Your task to perform on an android device: toggle pop-ups in chrome Image 0: 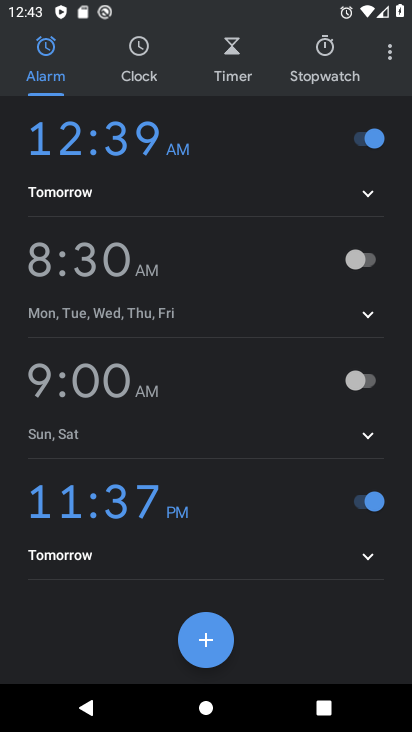
Step 0: press home button
Your task to perform on an android device: toggle pop-ups in chrome Image 1: 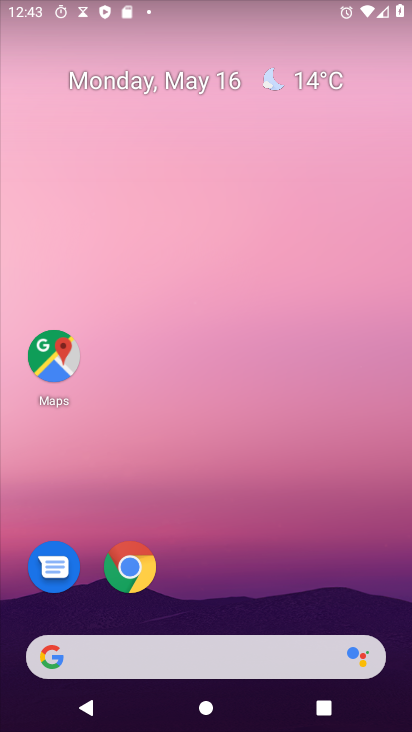
Step 1: click (141, 566)
Your task to perform on an android device: toggle pop-ups in chrome Image 2: 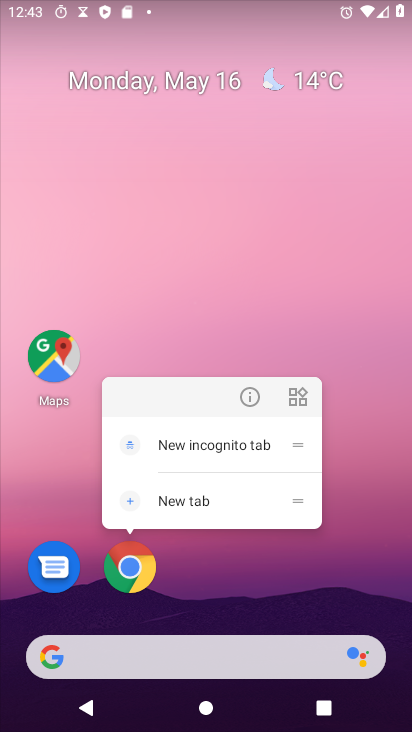
Step 2: click (141, 566)
Your task to perform on an android device: toggle pop-ups in chrome Image 3: 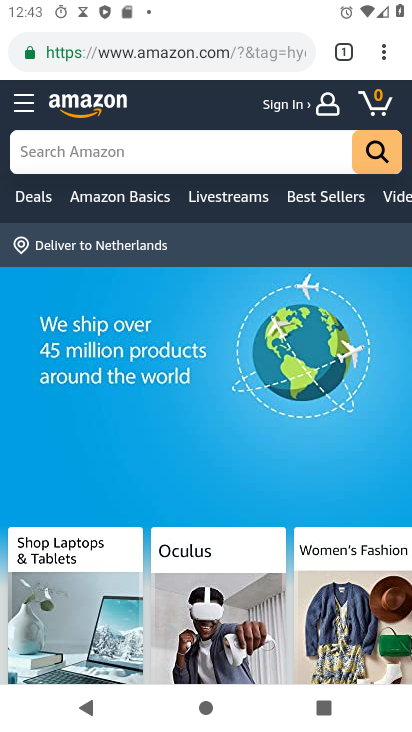
Step 3: click (383, 57)
Your task to perform on an android device: toggle pop-ups in chrome Image 4: 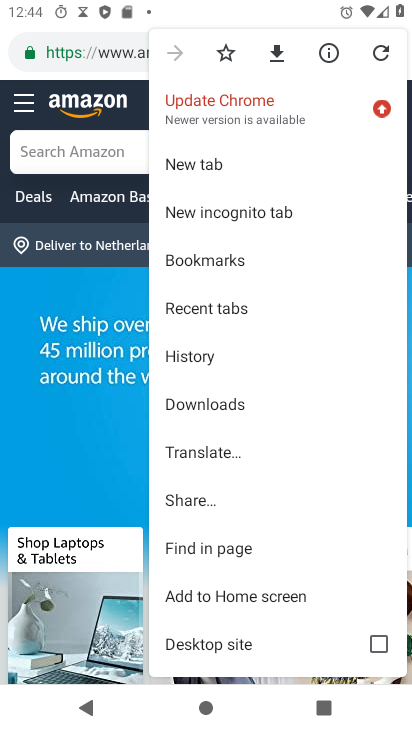
Step 4: drag from (244, 634) to (306, 194)
Your task to perform on an android device: toggle pop-ups in chrome Image 5: 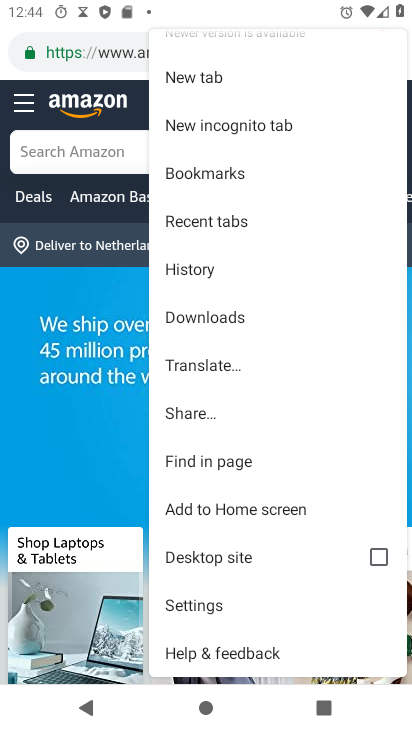
Step 5: click (180, 610)
Your task to perform on an android device: toggle pop-ups in chrome Image 6: 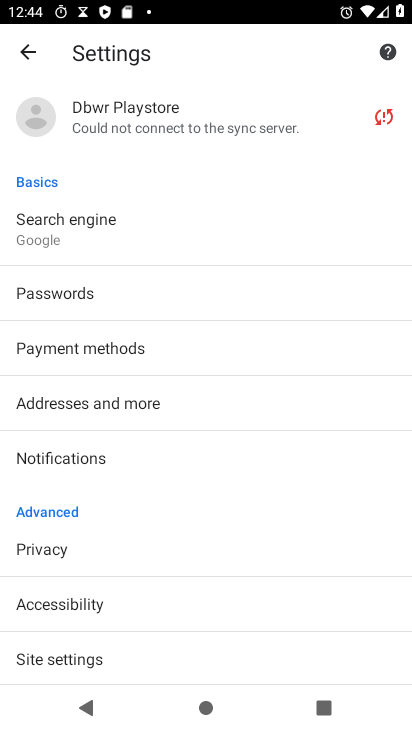
Step 6: drag from (94, 605) to (201, 243)
Your task to perform on an android device: toggle pop-ups in chrome Image 7: 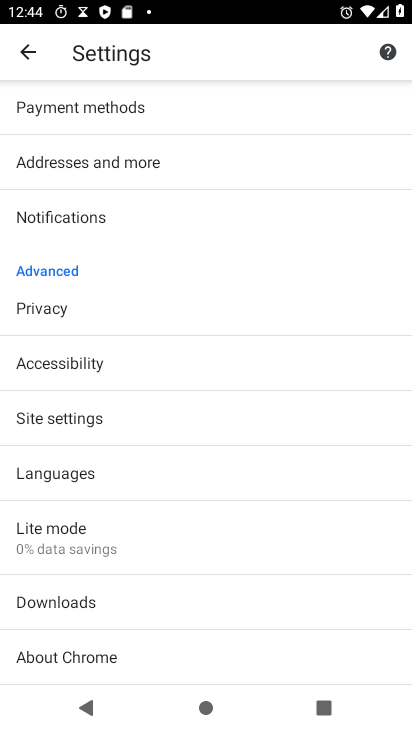
Step 7: click (88, 433)
Your task to perform on an android device: toggle pop-ups in chrome Image 8: 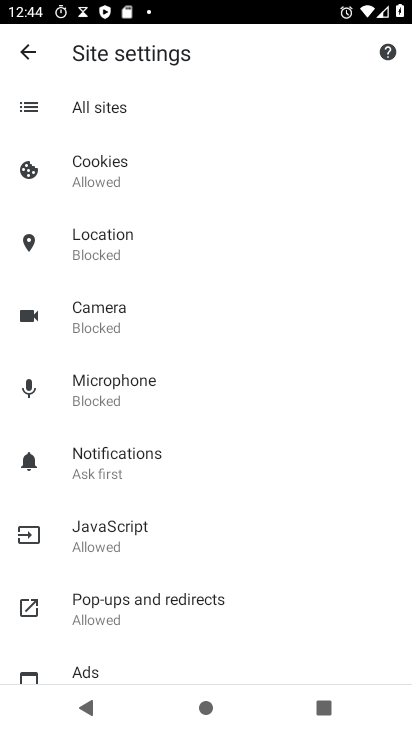
Step 8: click (178, 600)
Your task to perform on an android device: toggle pop-ups in chrome Image 9: 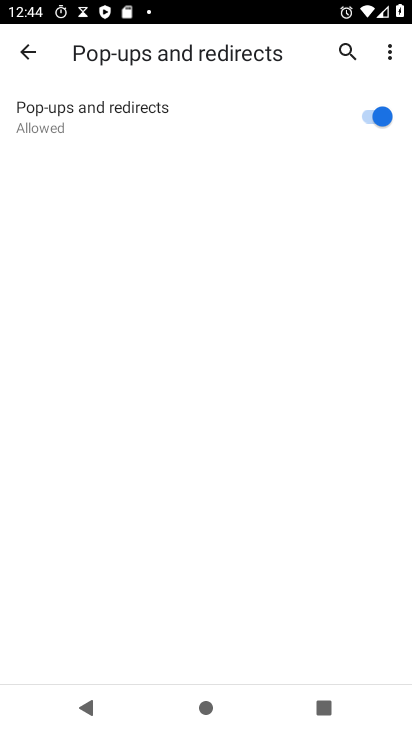
Step 9: click (375, 112)
Your task to perform on an android device: toggle pop-ups in chrome Image 10: 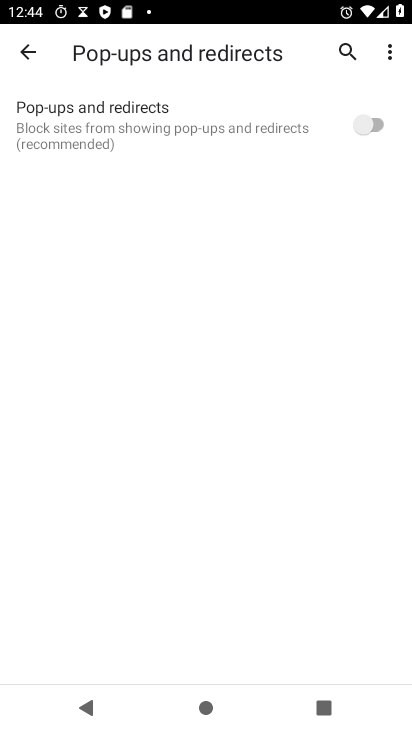
Step 10: task complete